Your task to perform on an android device: turn off location Image 0: 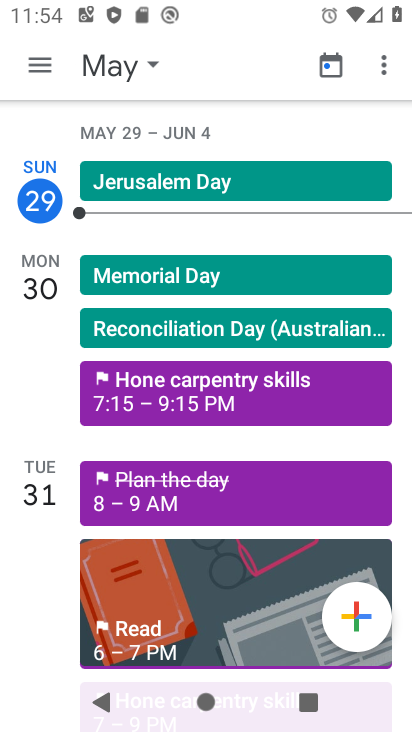
Step 0: press home button
Your task to perform on an android device: turn off location Image 1: 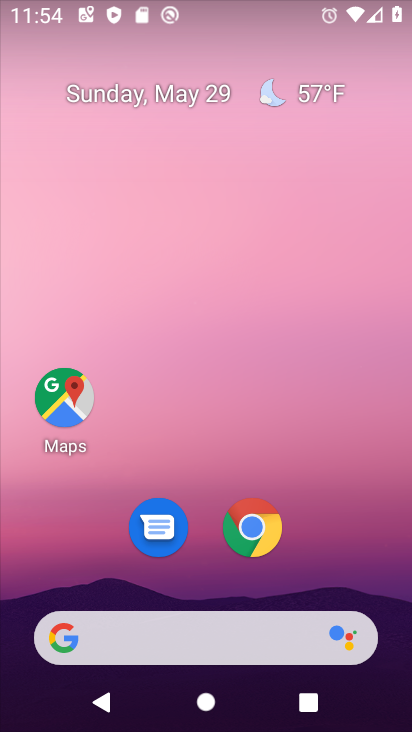
Step 1: drag from (208, 599) to (187, 51)
Your task to perform on an android device: turn off location Image 2: 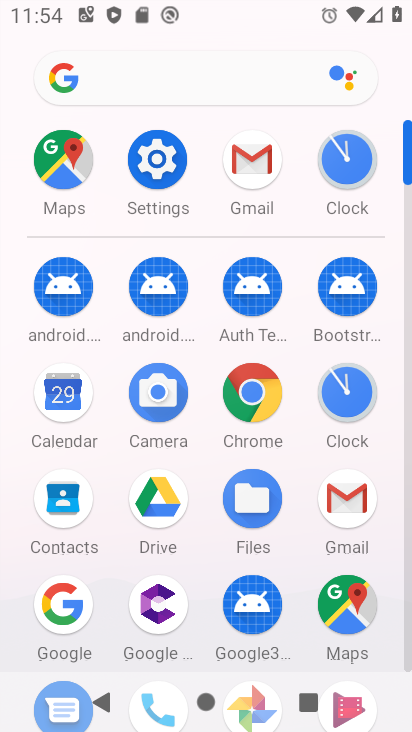
Step 2: click (161, 144)
Your task to perform on an android device: turn off location Image 3: 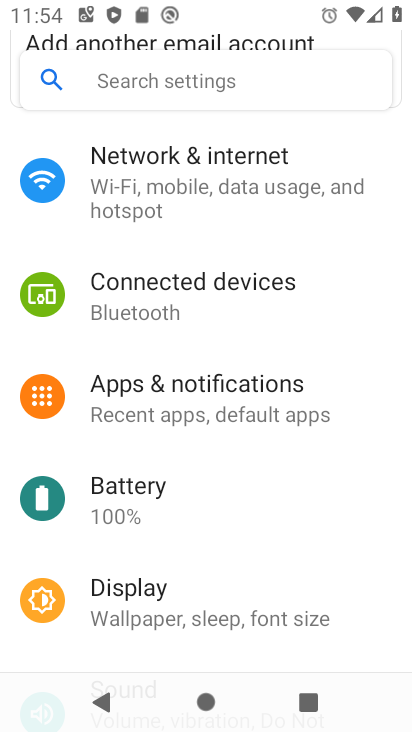
Step 3: drag from (111, 660) to (226, 241)
Your task to perform on an android device: turn off location Image 4: 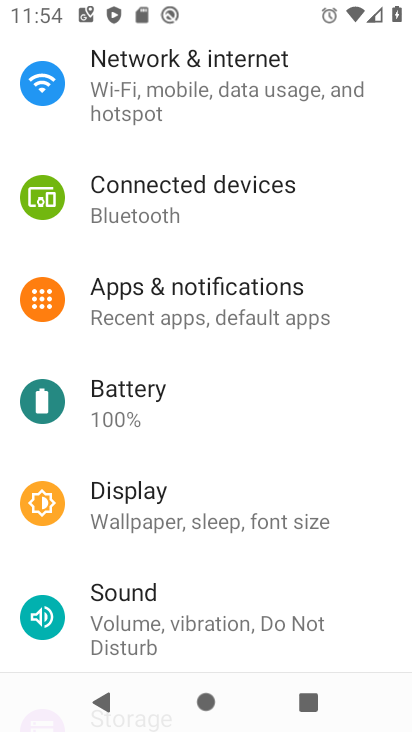
Step 4: drag from (120, 555) to (215, 124)
Your task to perform on an android device: turn off location Image 5: 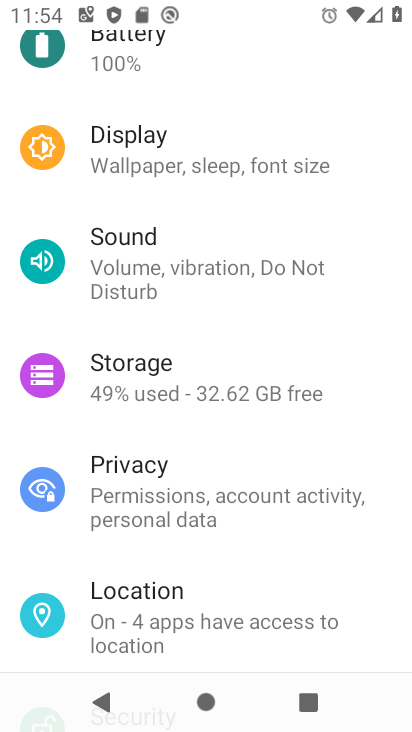
Step 5: click (222, 615)
Your task to perform on an android device: turn off location Image 6: 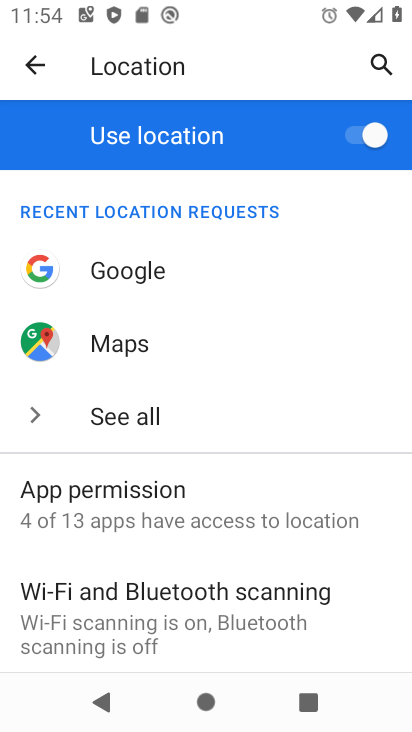
Step 6: click (363, 136)
Your task to perform on an android device: turn off location Image 7: 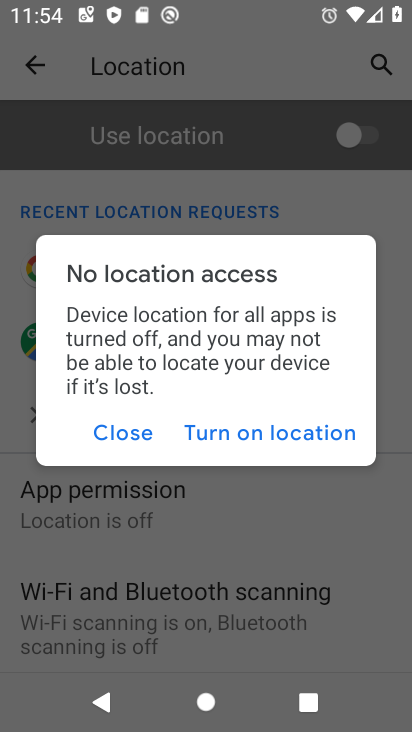
Step 7: task complete